Your task to perform on an android device: Go to ESPN.com Image 0: 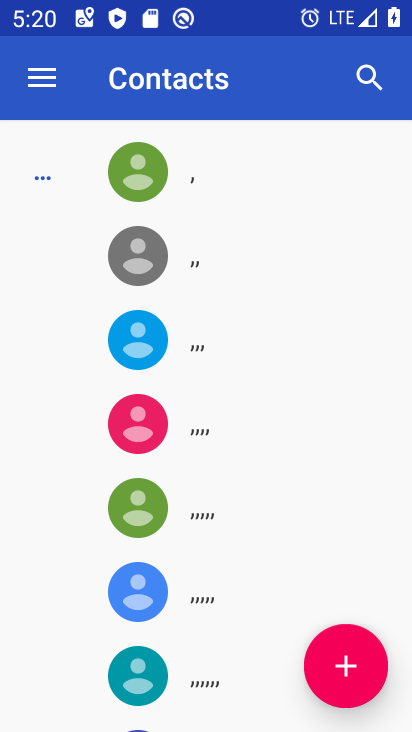
Step 0: press home button
Your task to perform on an android device: Go to ESPN.com Image 1: 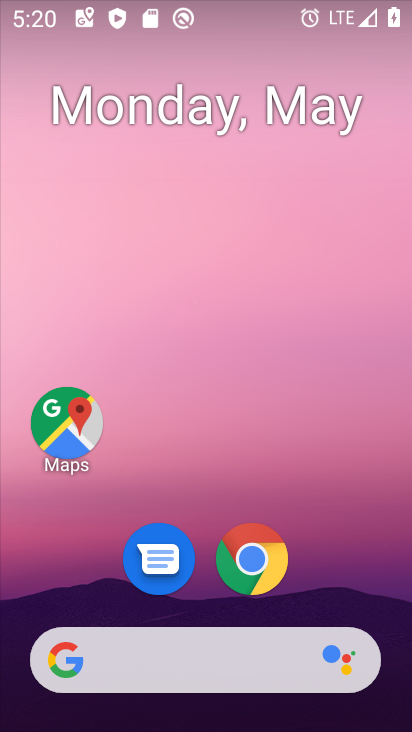
Step 1: drag from (285, 637) to (330, 5)
Your task to perform on an android device: Go to ESPN.com Image 2: 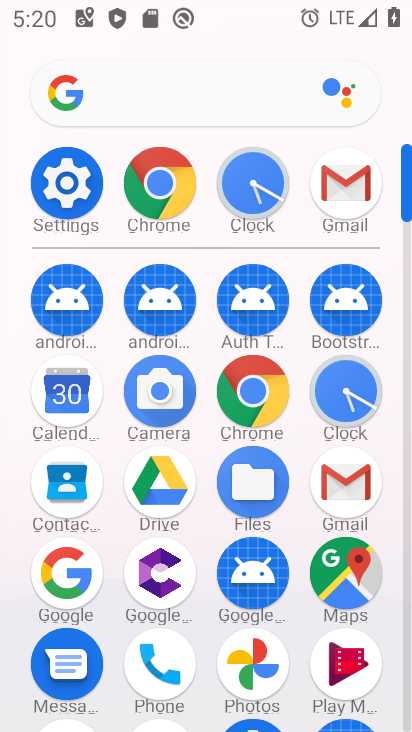
Step 2: click (276, 397)
Your task to perform on an android device: Go to ESPN.com Image 3: 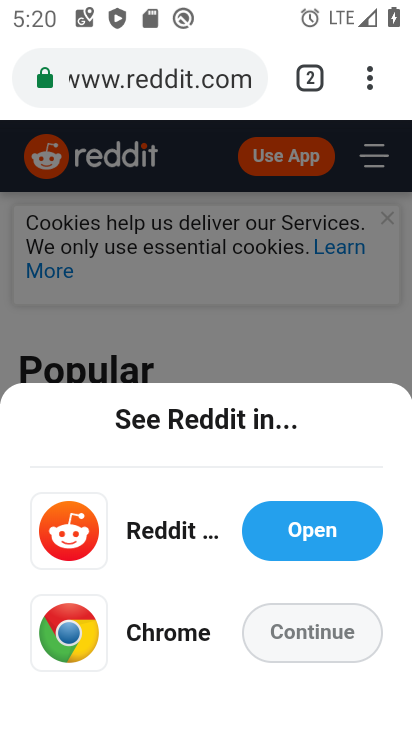
Step 3: click (195, 70)
Your task to perform on an android device: Go to ESPN.com Image 4: 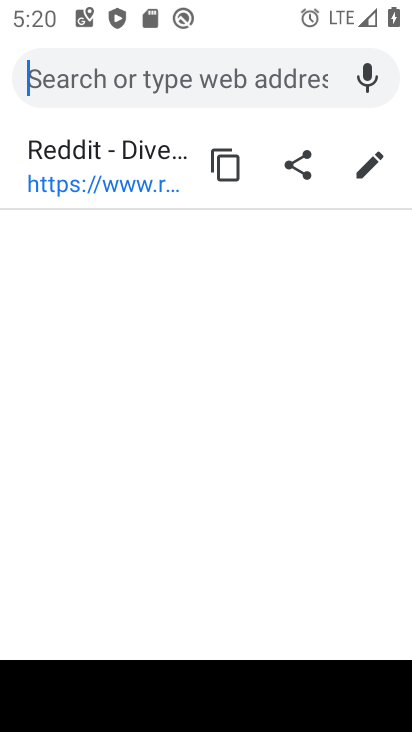
Step 4: type "espn.com"
Your task to perform on an android device: Go to ESPN.com Image 5: 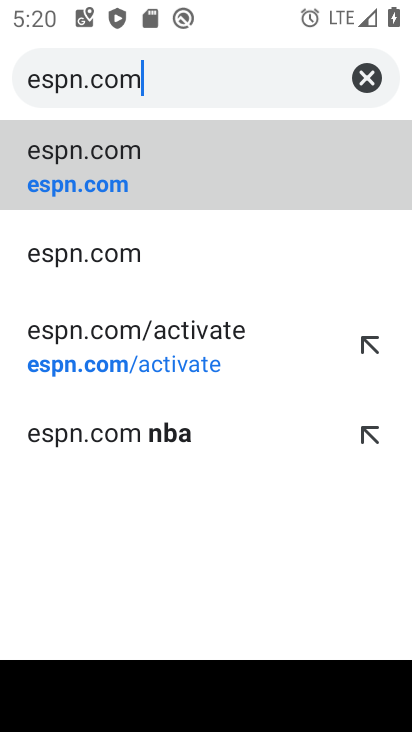
Step 5: click (133, 153)
Your task to perform on an android device: Go to ESPN.com Image 6: 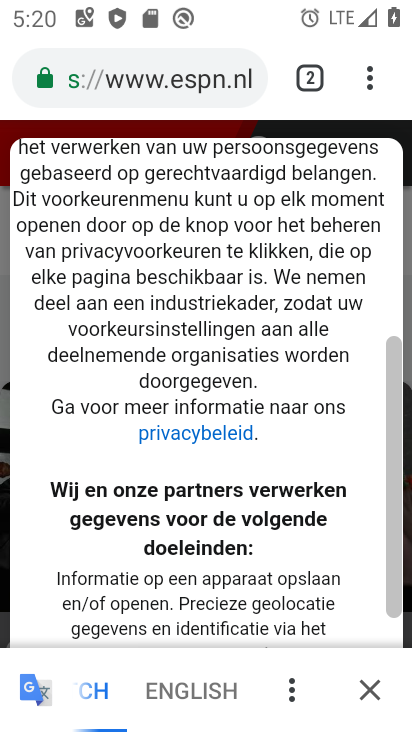
Step 6: task complete